Your task to perform on an android device: open app "DoorDash - Dasher" (install if not already installed) Image 0: 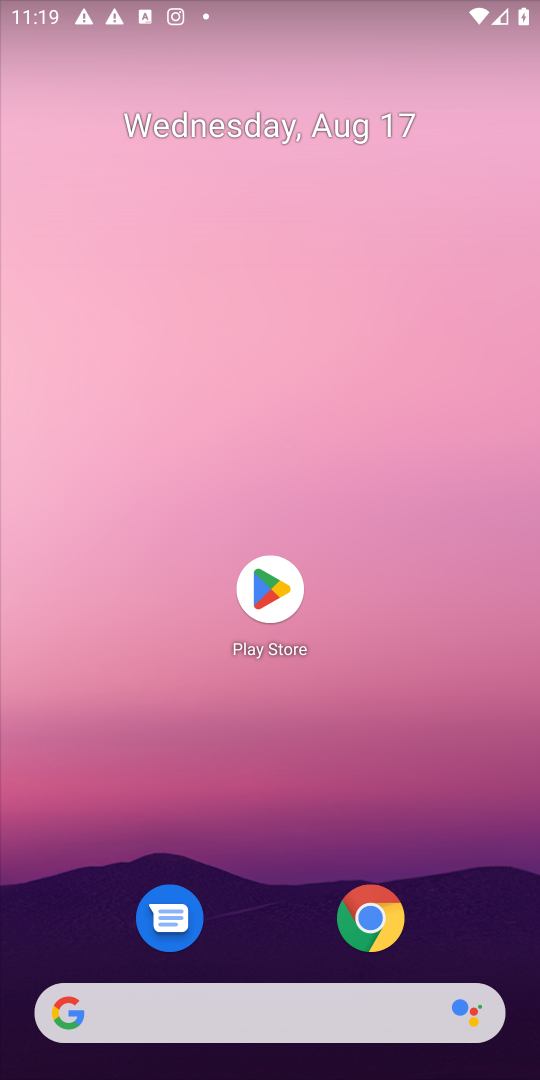
Step 0: click (268, 589)
Your task to perform on an android device: open app "DoorDash - Dasher" (install if not already installed) Image 1: 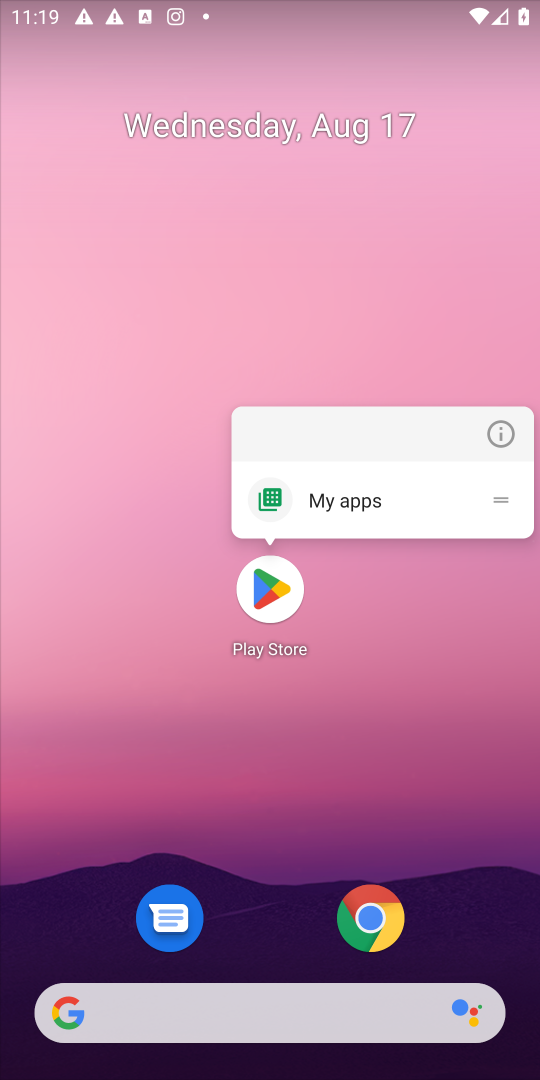
Step 1: click (268, 589)
Your task to perform on an android device: open app "DoorDash - Dasher" (install if not already installed) Image 2: 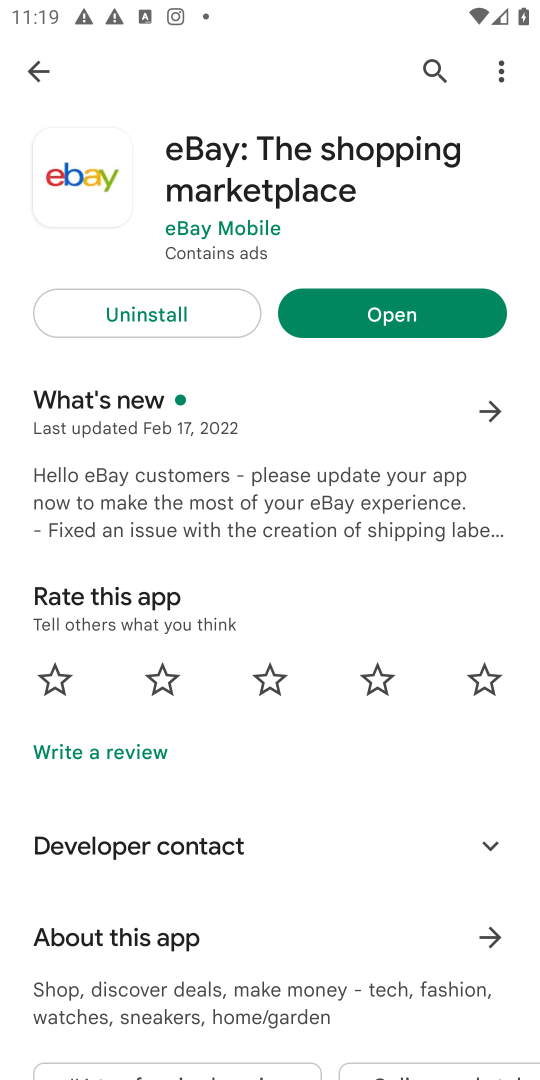
Step 2: click (427, 70)
Your task to perform on an android device: open app "DoorDash - Dasher" (install if not already installed) Image 3: 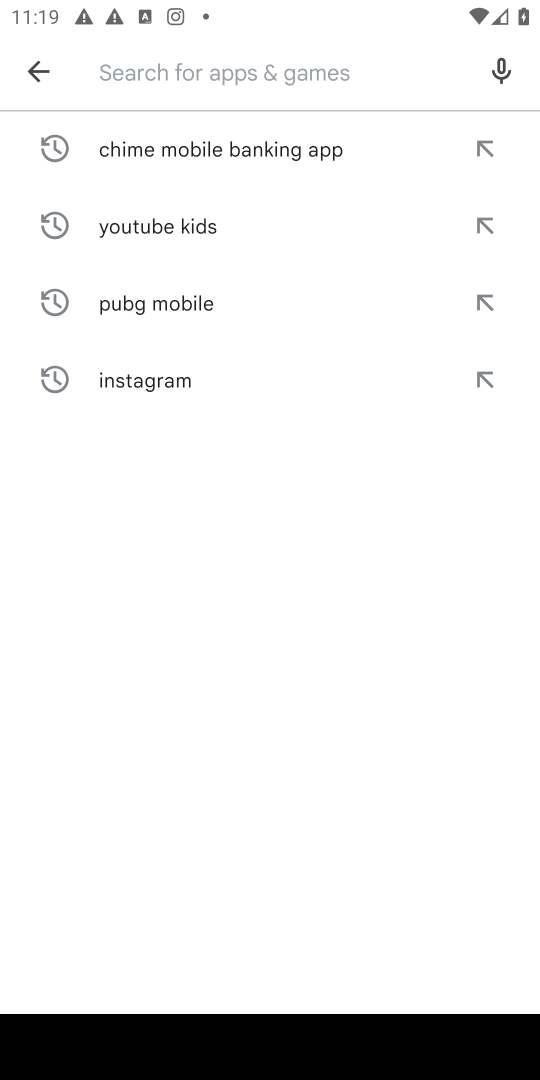
Step 3: type "DoorDash - Dasher"
Your task to perform on an android device: open app "DoorDash - Dasher" (install if not already installed) Image 4: 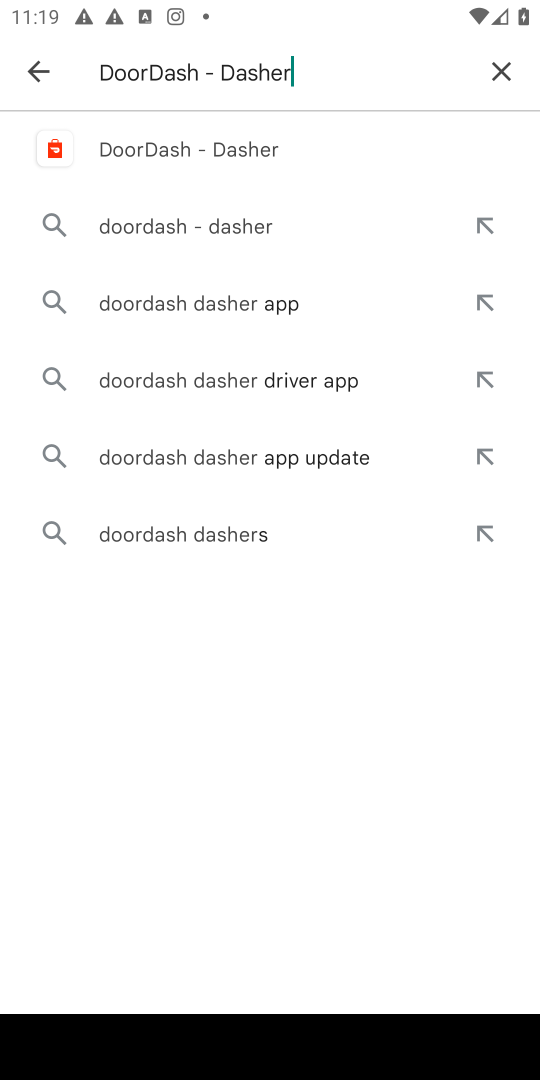
Step 4: click (218, 156)
Your task to perform on an android device: open app "DoorDash - Dasher" (install if not already installed) Image 5: 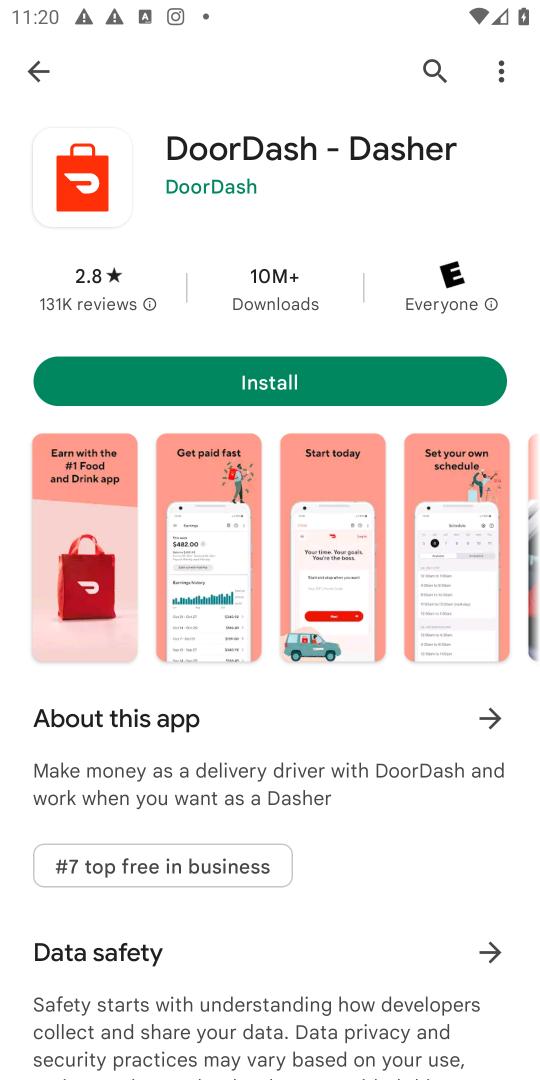
Step 5: click (229, 388)
Your task to perform on an android device: open app "DoorDash - Dasher" (install if not already installed) Image 6: 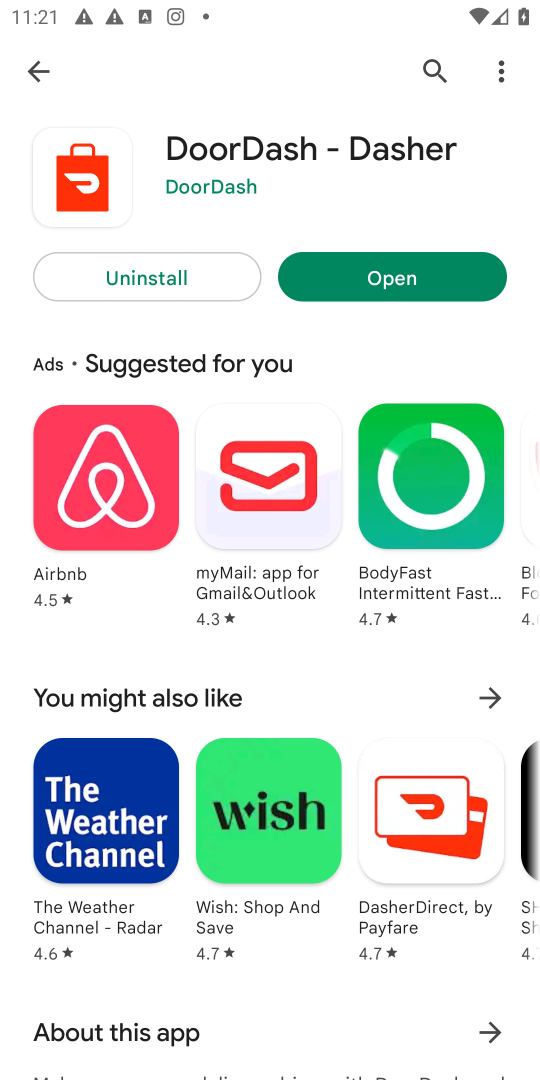
Step 6: click (410, 287)
Your task to perform on an android device: open app "DoorDash - Dasher" (install if not already installed) Image 7: 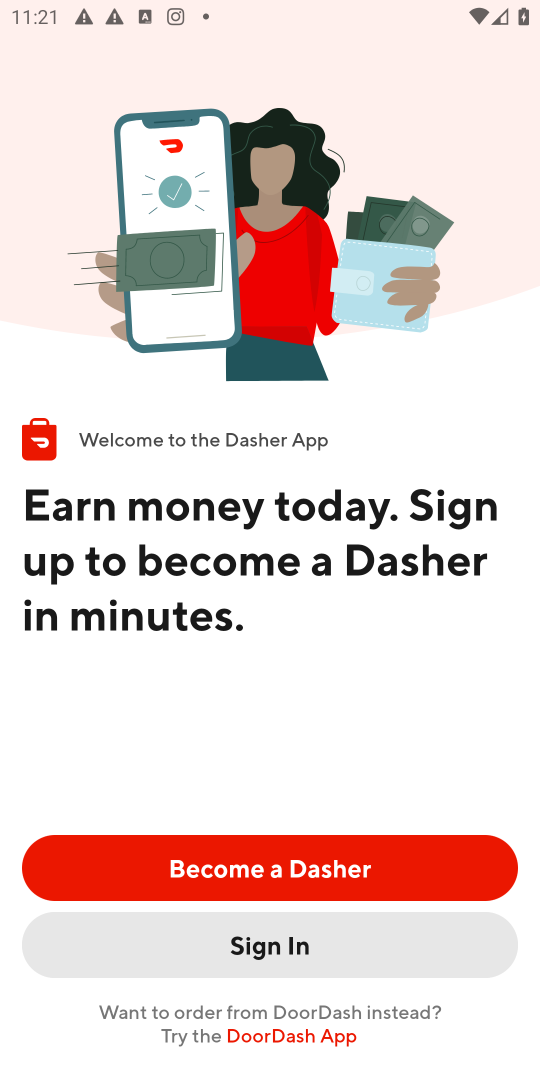
Step 7: task complete